Your task to perform on an android device: Search for Mexican restaurants on Maps Image 0: 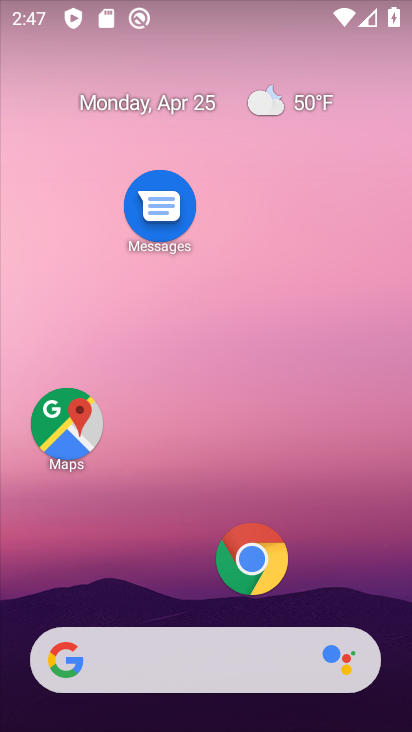
Step 0: click (67, 419)
Your task to perform on an android device: Search for Mexican restaurants on Maps Image 1: 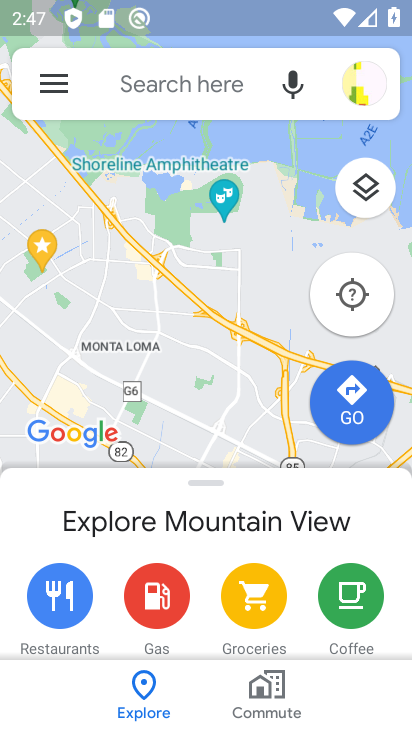
Step 1: click (184, 82)
Your task to perform on an android device: Search for Mexican restaurants on Maps Image 2: 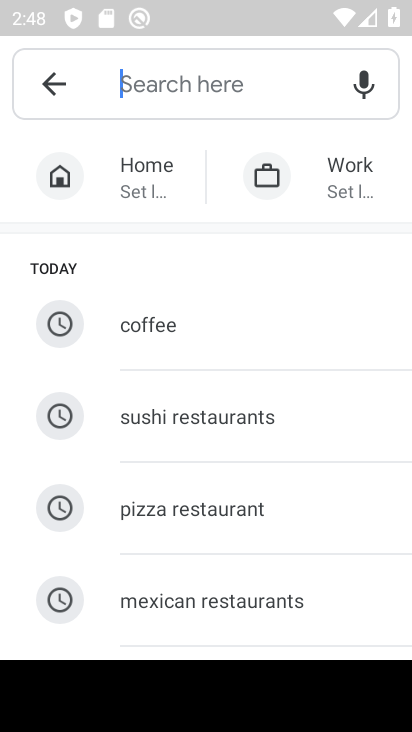
Step 2: type "mexican restaurants"
Your task to perform on an android device: Search for Mexican restaurants on Maps Image 3: 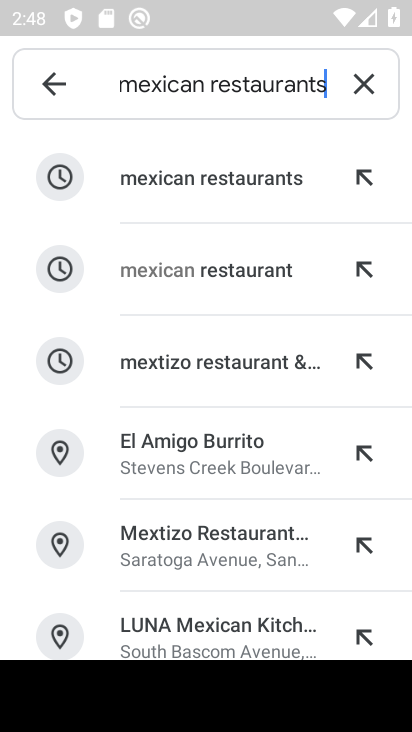
Step 3: click (212, 189)
Your task to perform on an android device: Search for Mexican restaurants on Maps Image 4: 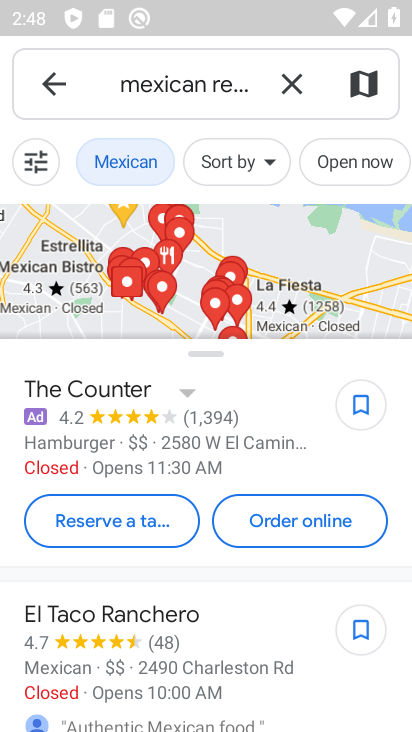
Step 4: task complete